Your task to perform on an android device: open app "Google Play Games" (install if not already installed) Image 0: 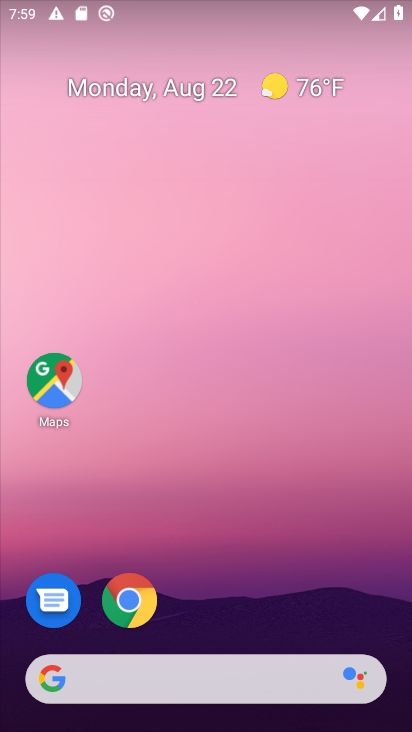
Step 0: drag from (207, 581) to (283, 115)
Your task to perform on an android device: open app "Google Play Games" (install if not already installed) Image 1: 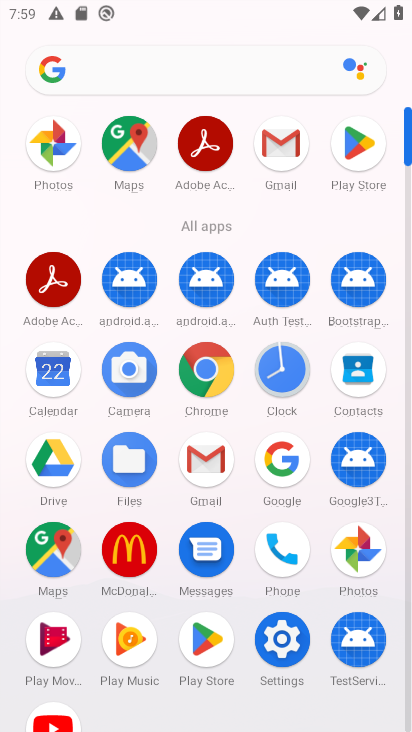
Step 1: click (360, 159)
Your task to perform on an android device: open app "Google Play Games" (install if not already installed) Image 2: 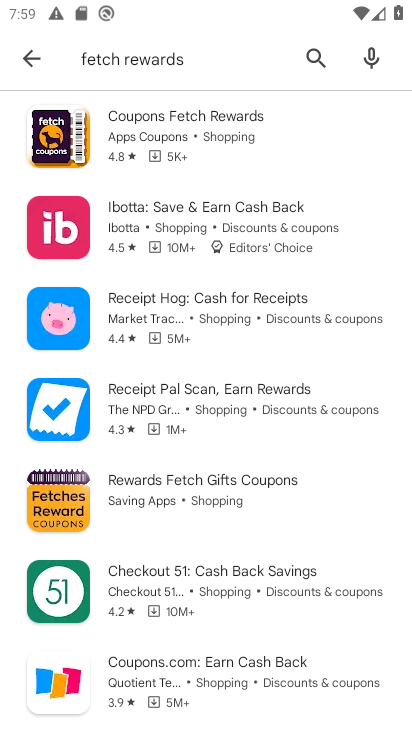
Step 2: click (324, 51)
Your task to perform on an android device: open app "Google Play Games" (install if not already installed) Image 3: 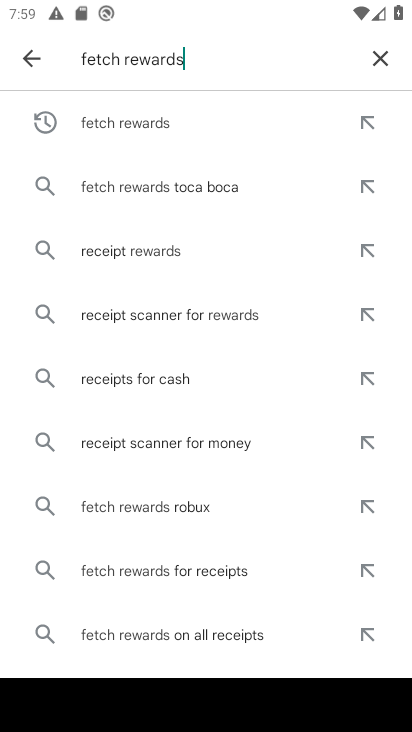
Step 3: click (381, 55)
Your task to perform on an android device: open app "Google Play Games" (install if not already installed) Image 4: 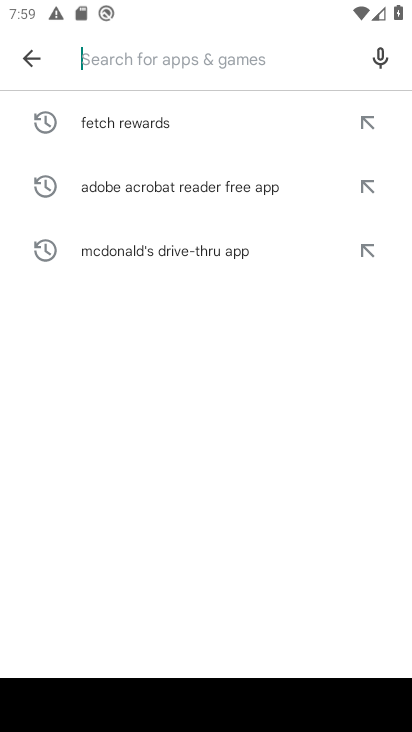
Step 4: type "Google Play Games"
Your task to perform on an android device: open app "Google Play Games" (install if not already installed) Image 5: 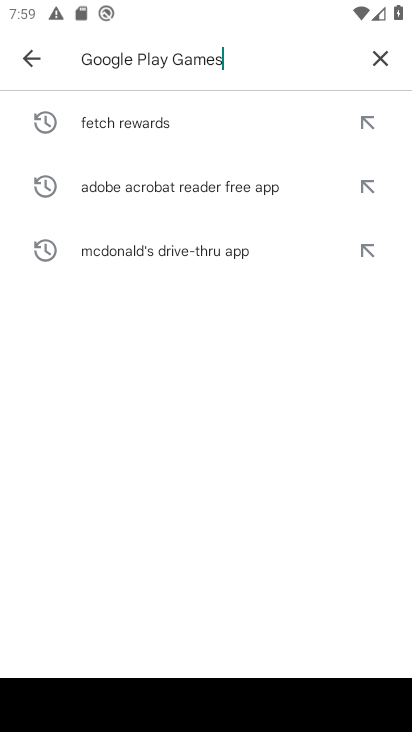
Step 5: type ""
Your task to perform on an android device: open app "Google Play Games" (install if not already installed) Image 6: 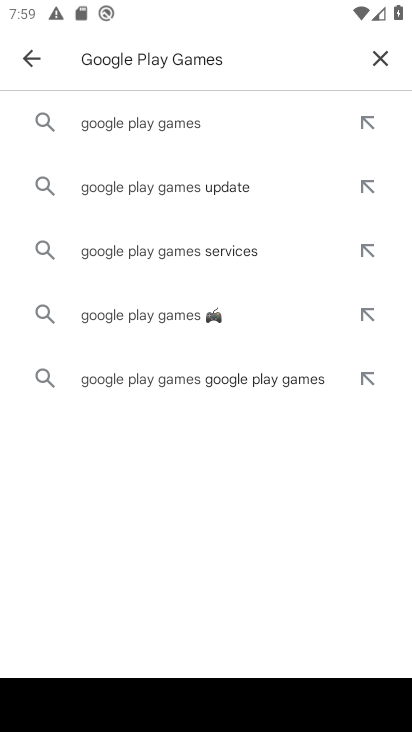
Step 6: click (190, 126)
Your task to perform on an android device: open app "Google Play Games" (install if not already installed) Image 7: 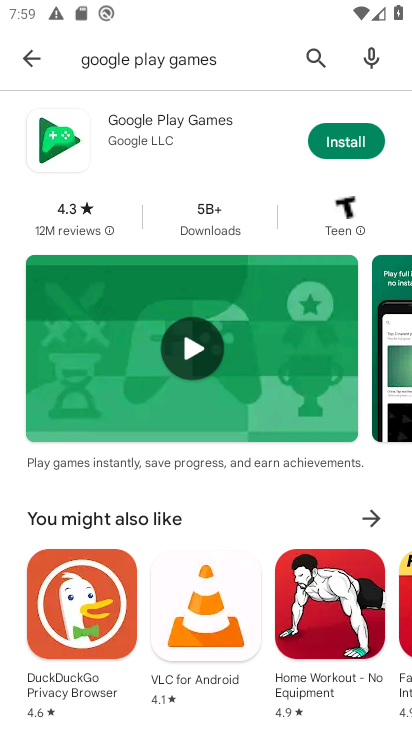
Step 7: click (358, 143)
Your task to perform on an android device: open app "Google Play Games" (install if not already installed) Image 8: 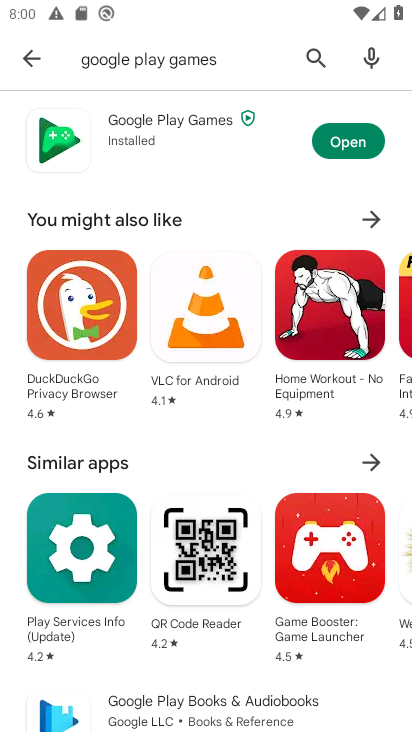
Step 8: click (358, 143)
Your task to perform on an android device: open app "Google Play Games" (install if not already installed) Image 9: 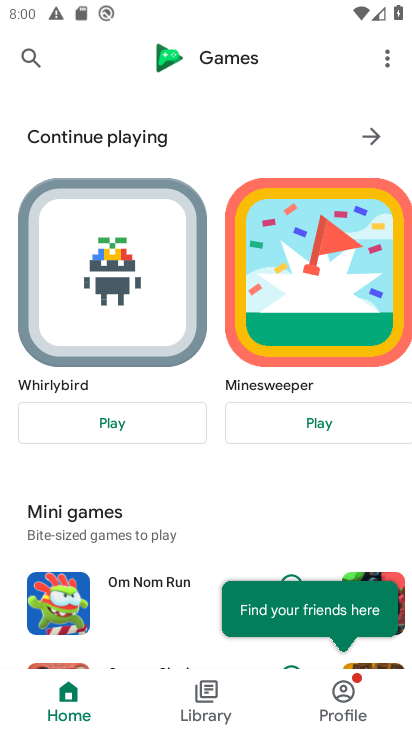
Step 9: task complete